Your task to perform on an android device: open a new tab in the chrome app Image 0: 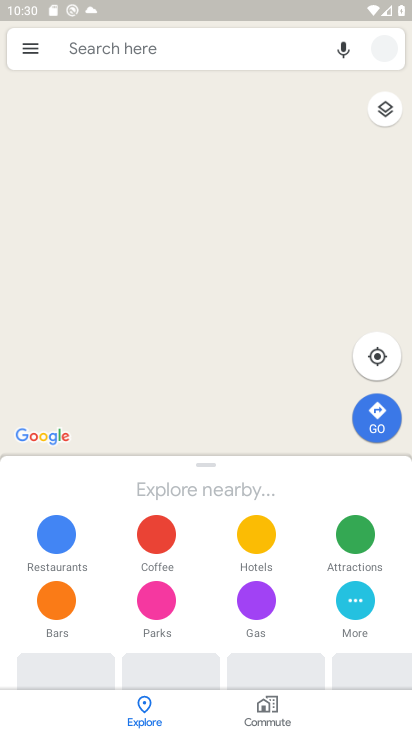
Step 0: press home button
Your task to perform on an android device: open a new tab in the chrome app Image 1: 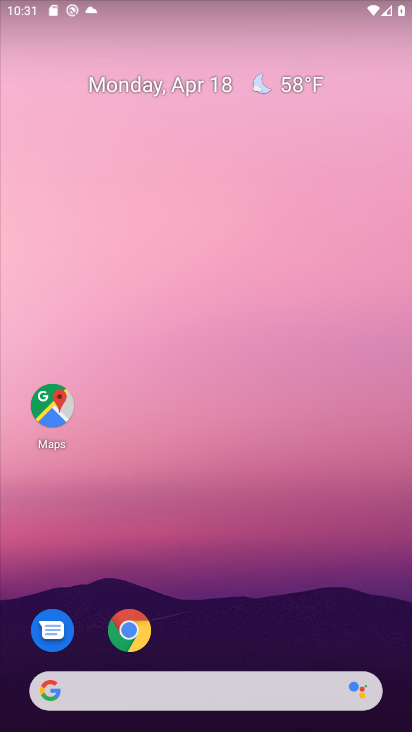
Step 1: click (125, 631)
Your task to perform on an android device: open a new tab in the chrome app Image 2: 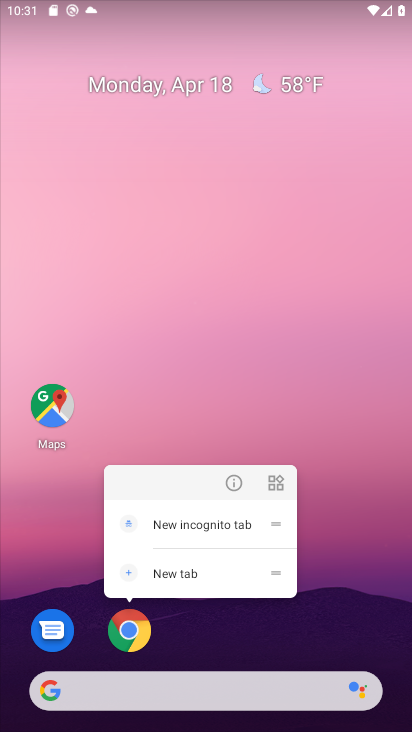
Step 2: click (125, 626)
Your task to perform on an android device: open a new tab in the chrome app Image 3: 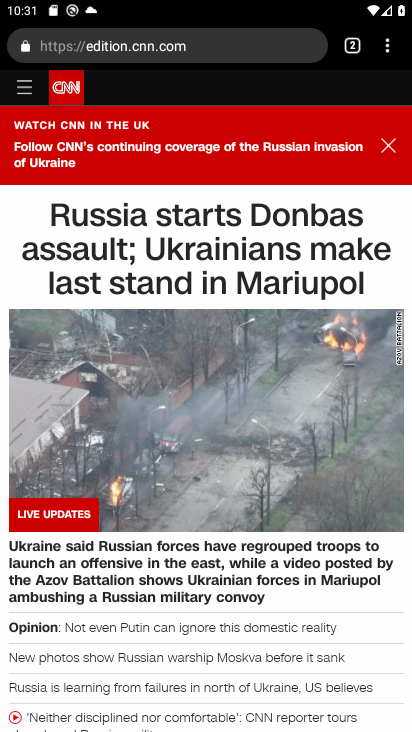
Step 3: click (352, 49)
Your task to perform on an android device: open a new tab in the chrome app Image 4: 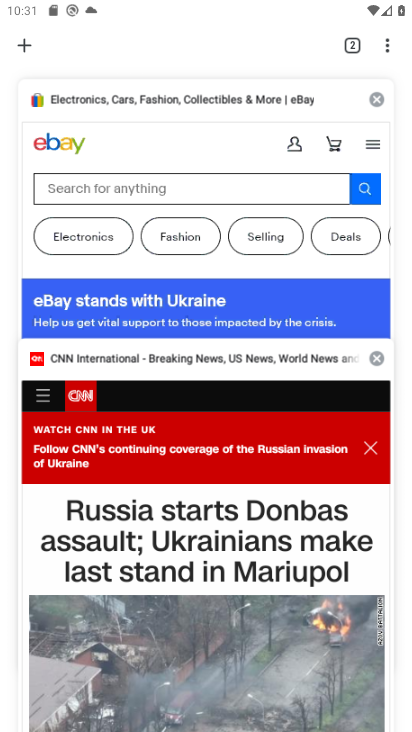
Step 4: click (23, 43)
Your task to perform on an android device: open a new tab in the chrome app Image 5: 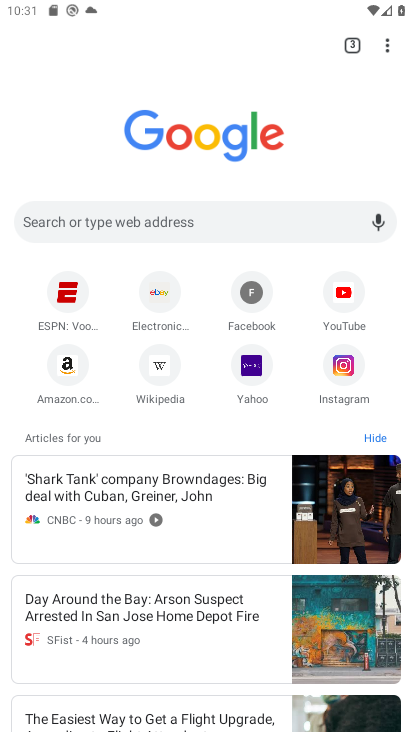
Step 5: task complete